Your task to perform on an android device: Search for flights from NYC to Chicago Image 0: 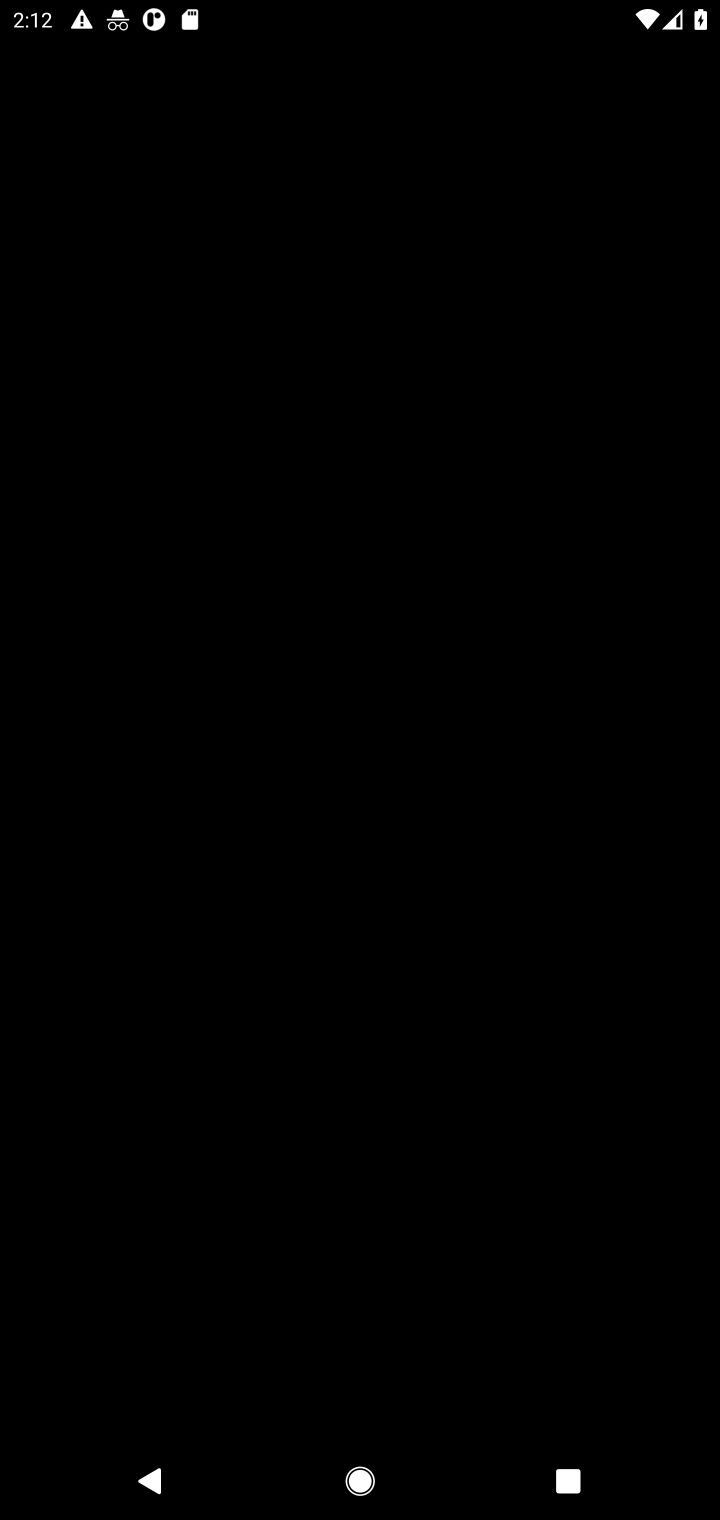
Step 0: press home button
Your task to perform on an android device: Search for flights from NYC to Chicago Image 1: 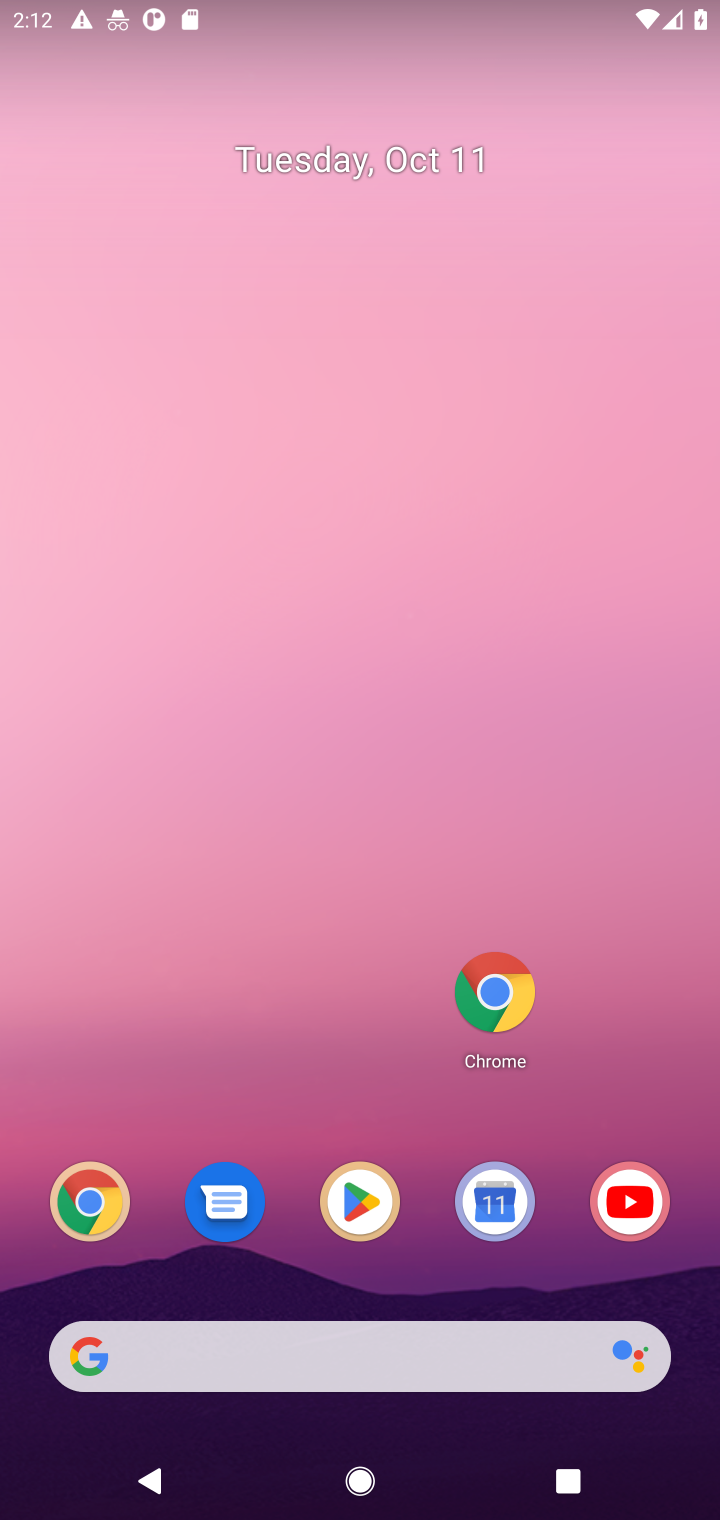
Step 1: click (497, 1007)
Your task to perform on an android device: Search for flights from NYC to Chicago Image 2: 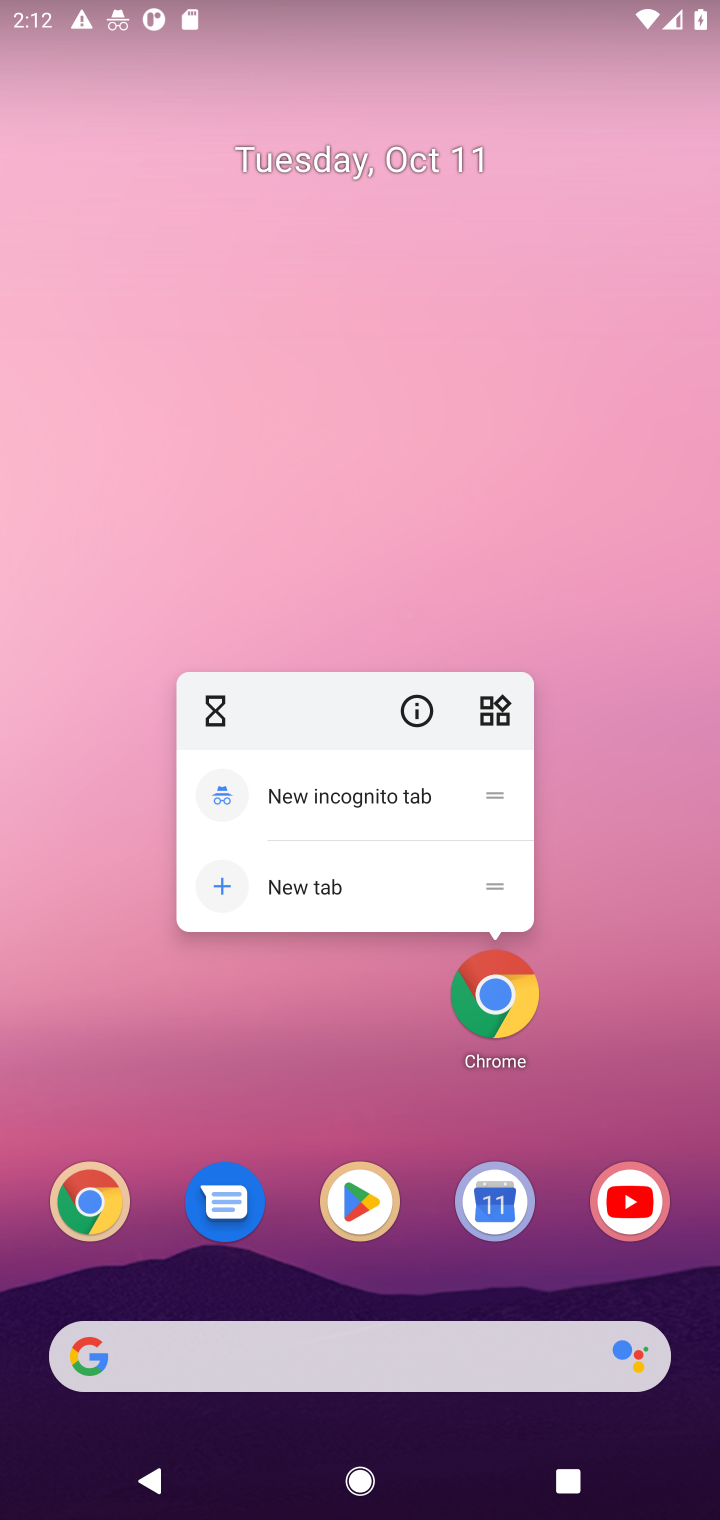
Step 2: click (497, 1013)
Your task to perform on an android device: Search for flights from NYC to Chicago Image 3: 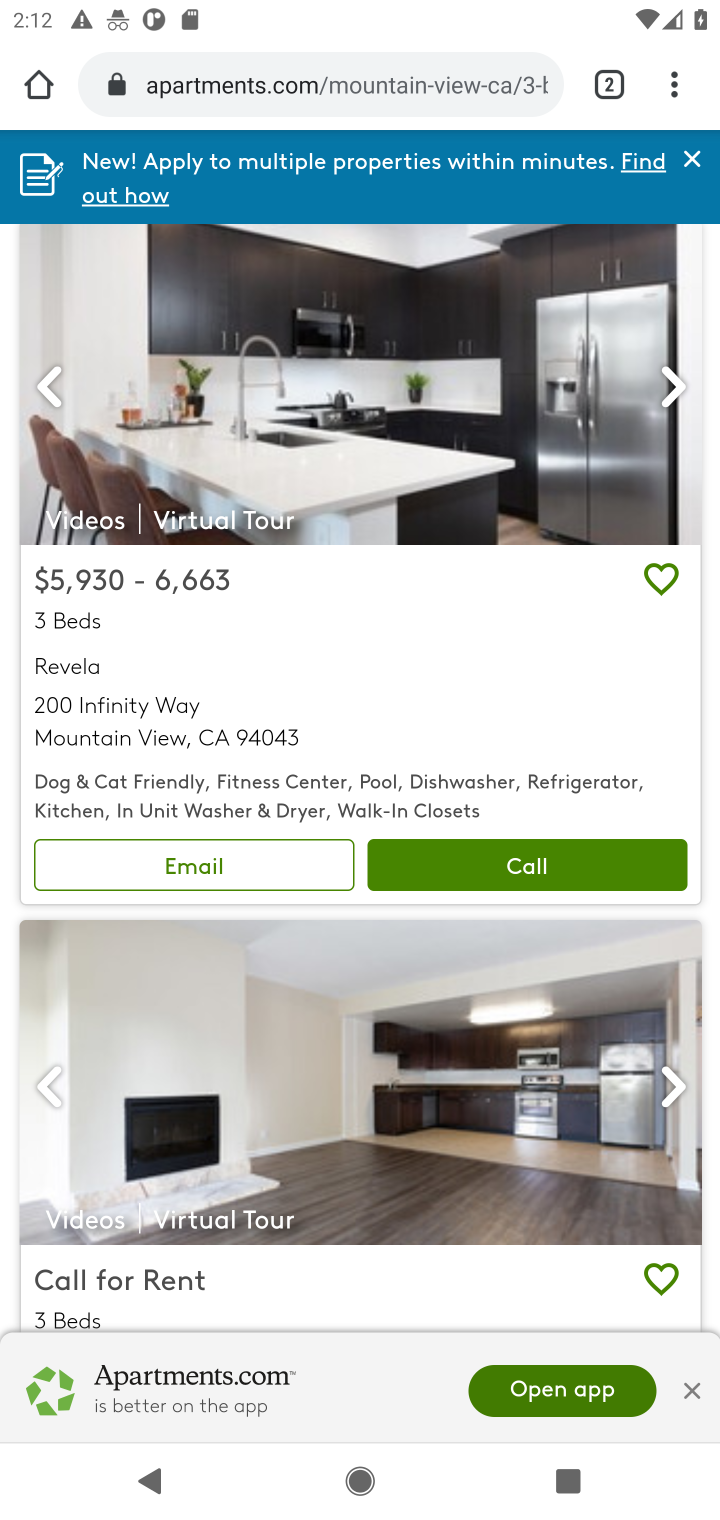
Step 3: click (427, 70)
Your task to perform on an android device: Search for flights from NYC to Chicago Image 4: 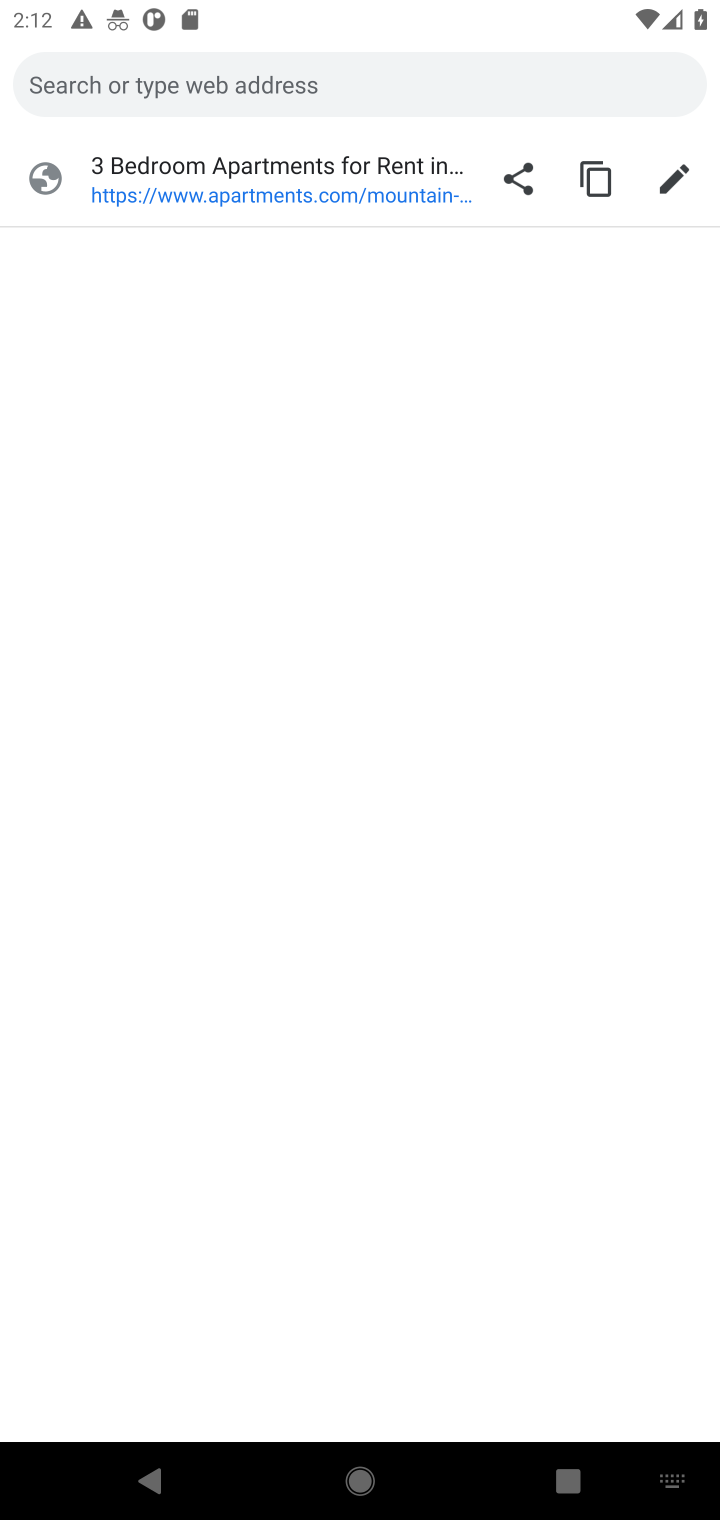
Step 4: type "flights from NYC to Chicago"
Your task to perform on an android device: Search for flights from NYC to Chicago Image 5: 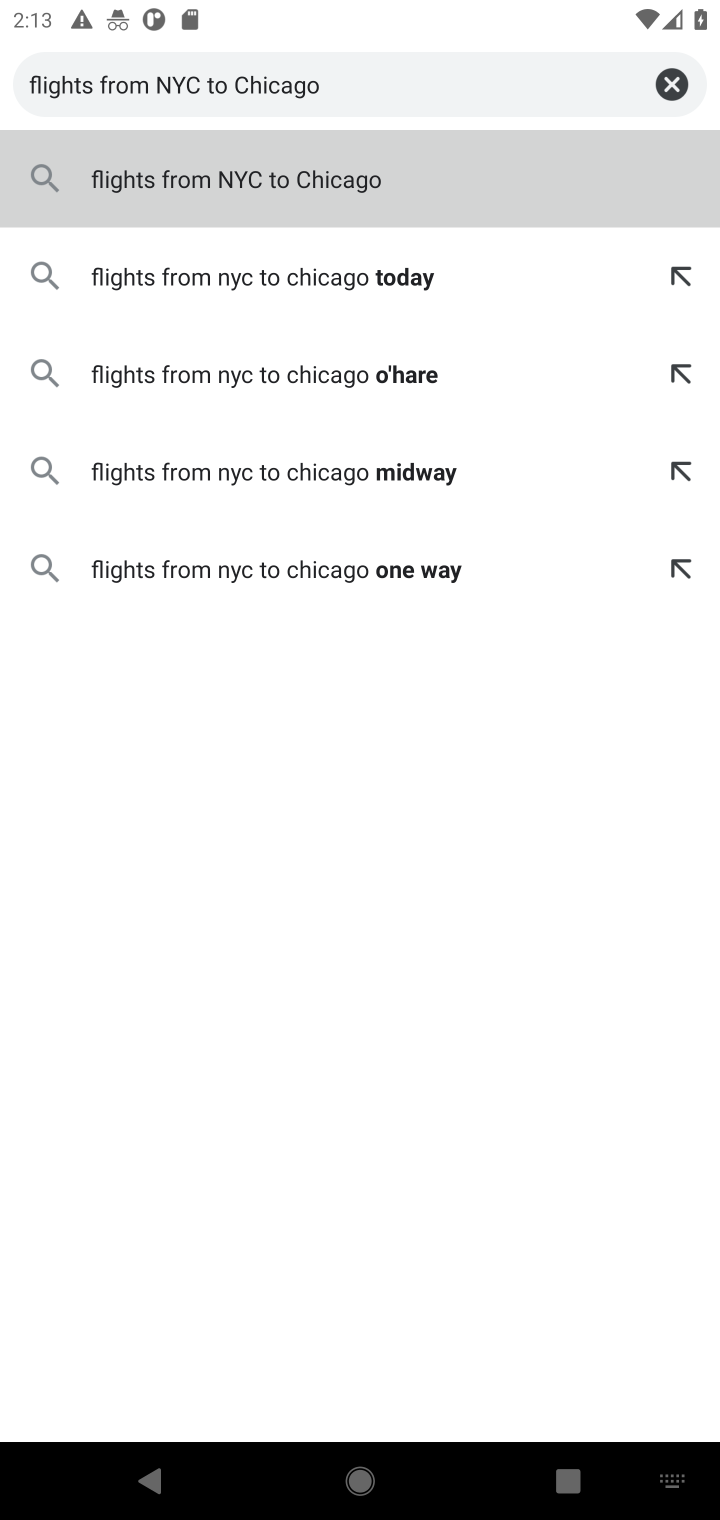
Step 5: press enter
Your task to perform on an android device: Search for flights from NYC to Chicago Image 6: 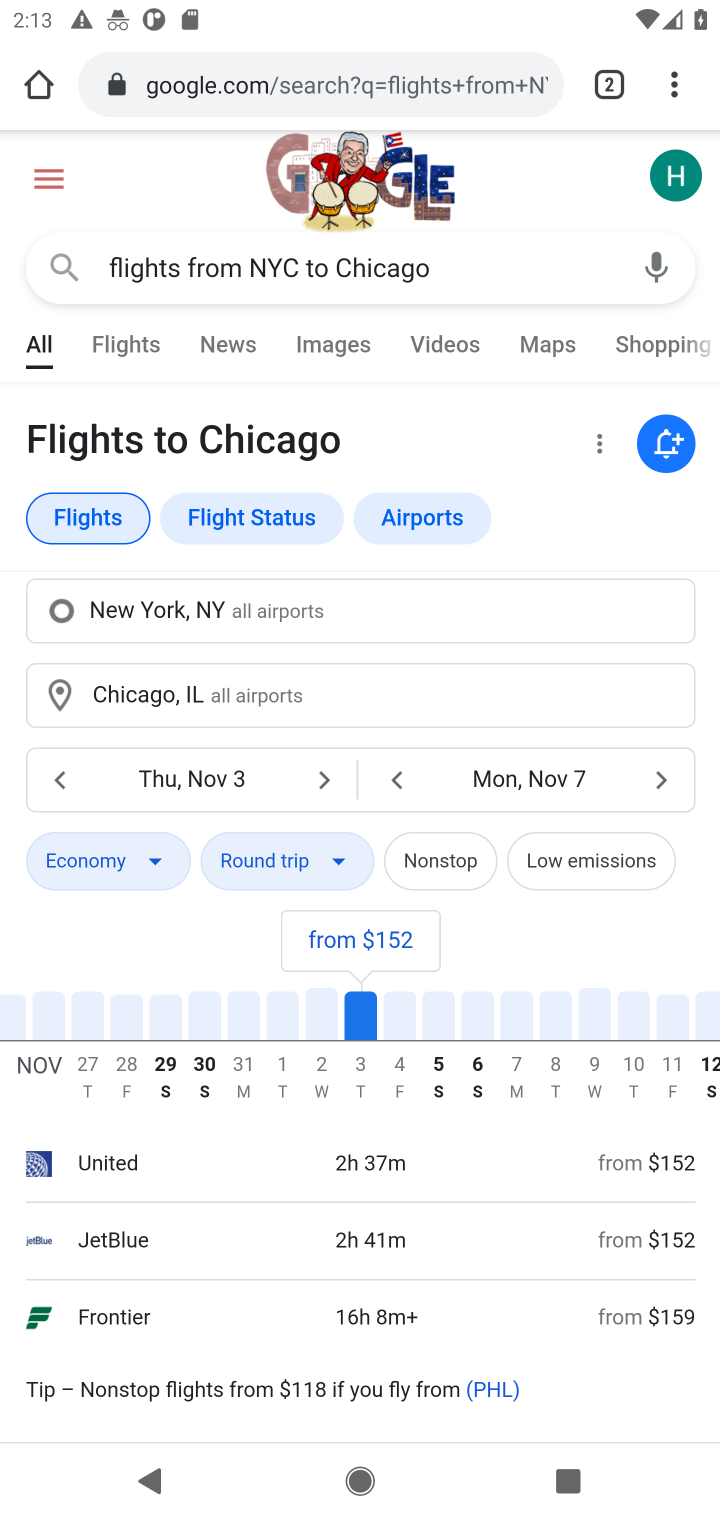
Step 6: drag from (333, 1218) to (689, 242)
Your task to perform on an android device: Search for flights from NYC to Chicago Image 7: 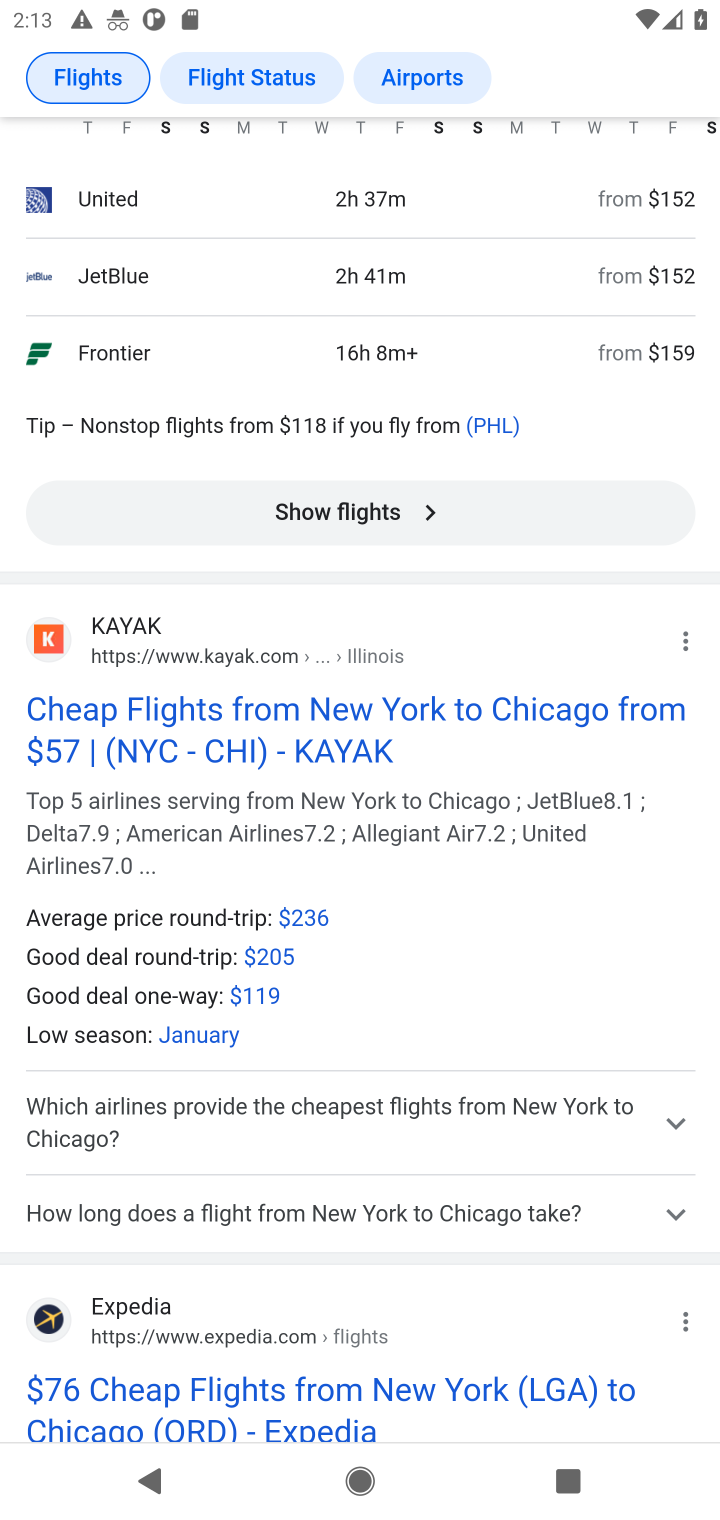
Step 7: click (385, 504)
Your task to perform on an android device: Search for flights from NYC to Chicago Image 8: 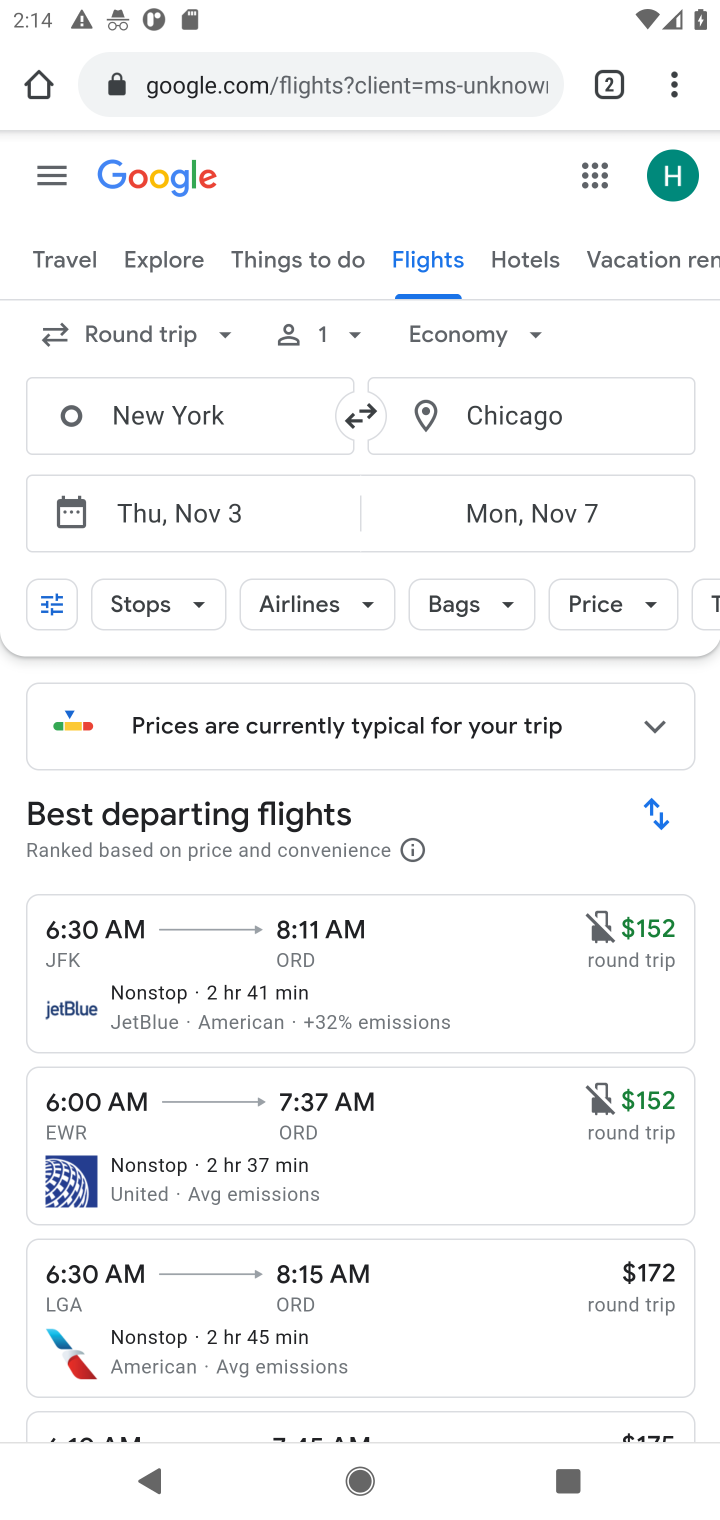
Step 8: task complete